Your task to perform on an android device: change notification settings in the gmail app Image 0: 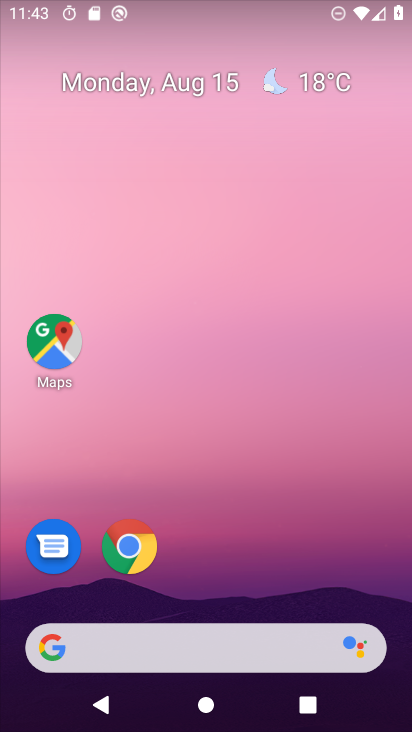
Step 0: drag from (238, 542) to (243, 89)
Your task to perform on an android device: change notification settings in the gmail app Image 1: 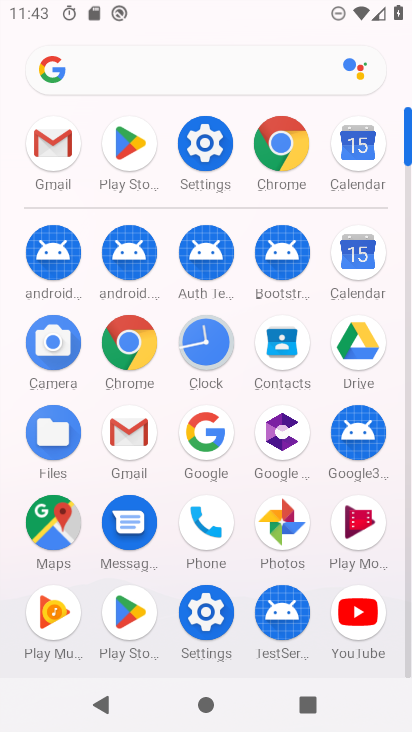
Step 1: click (135, 436)
Your task to perform on an android device: change notification settings in the gmail app Image 2: 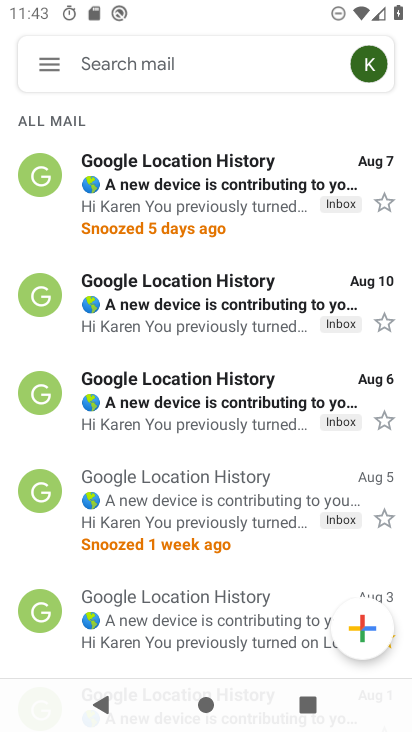
Step 2: click (48, 64)
Your task to perform on an android device: change notification settings in the gmail app Image 3: 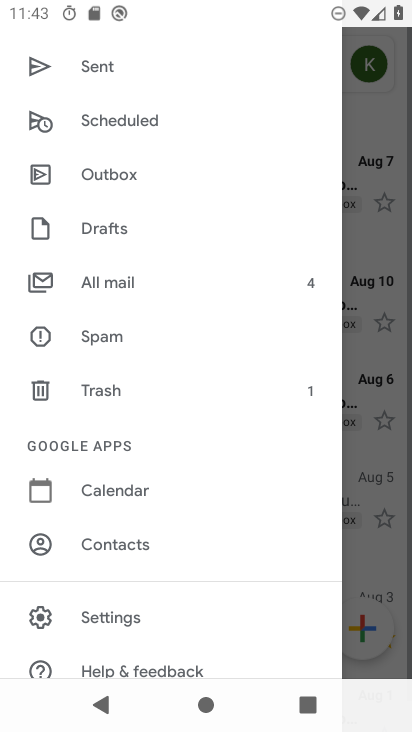
Step 3: click (105, 616)
Your task to perform on an android device: change notification settings in the gmail app Image 4: 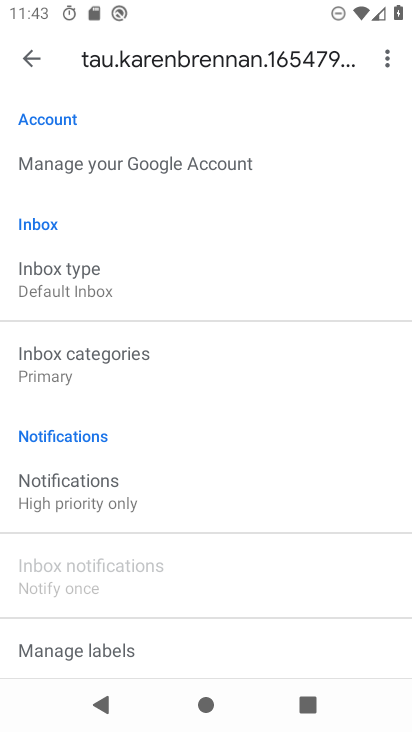
Step 4: click (71, 483)
Your task to perform on an android device: change notification settings in the gmail app Image 5: 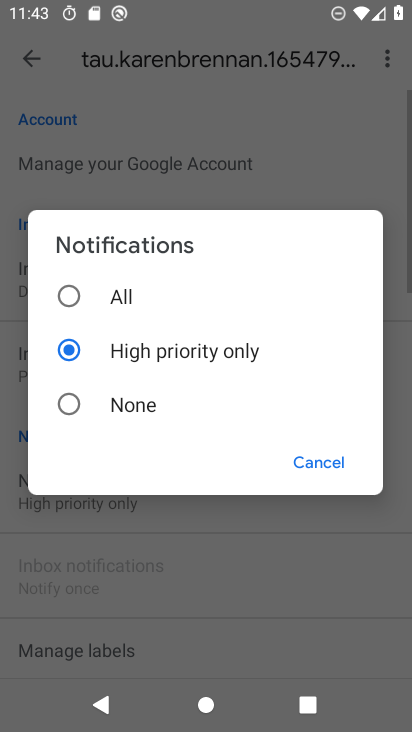
Step 5: click (67, 405)
Your task to perform on an android device: change notification settings in the gmail app Image 6: 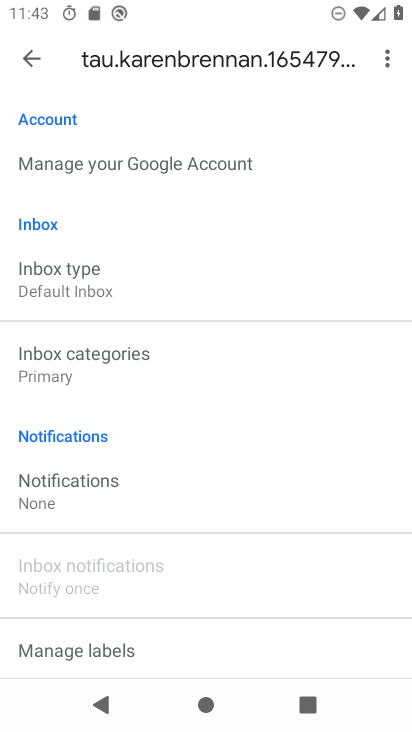
Step 6: task complete